Your task to perform on an android device: Open internet settings Image 0: 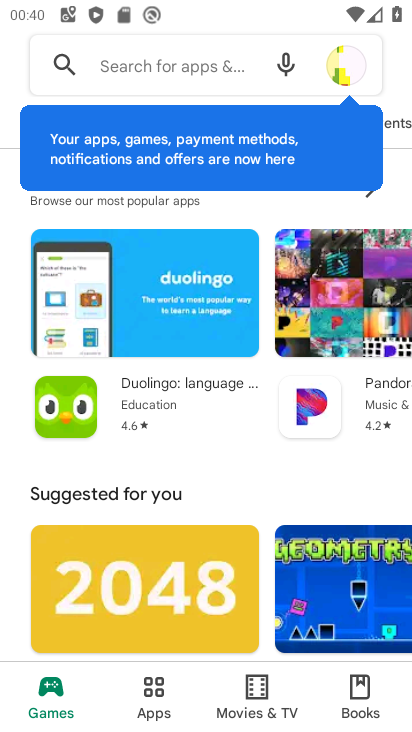
Step 0: press home button
Your task to perform on an android device: Open internet settings Image 1: 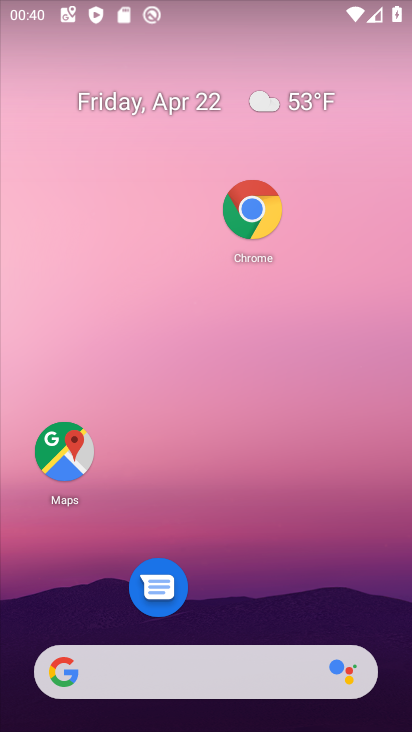
Step 1: drag from (265, 608) to (248, 82)
Your task to perform on an android device: Open internet settings Image 2: 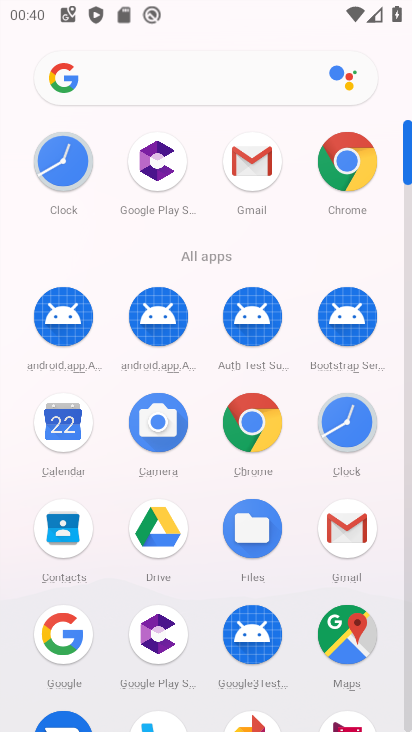
Step 2: drag from (190, 331) to (178, 63)
Your task to perform on an android device: Open internet settings Image 3: 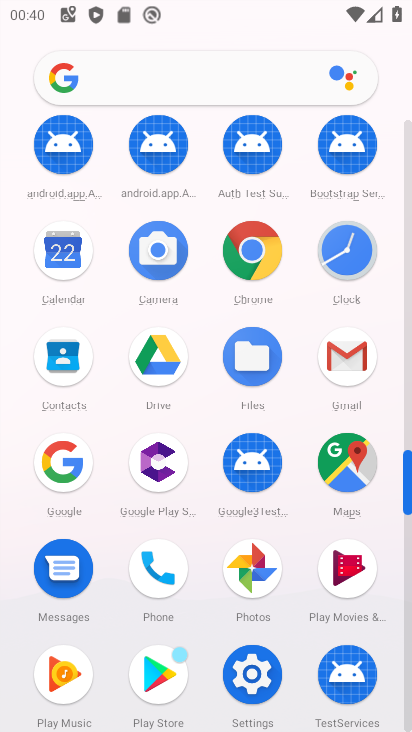
Step 3: click (260, 665)
Your task to perform on an android device: Open internet settings Image 4: 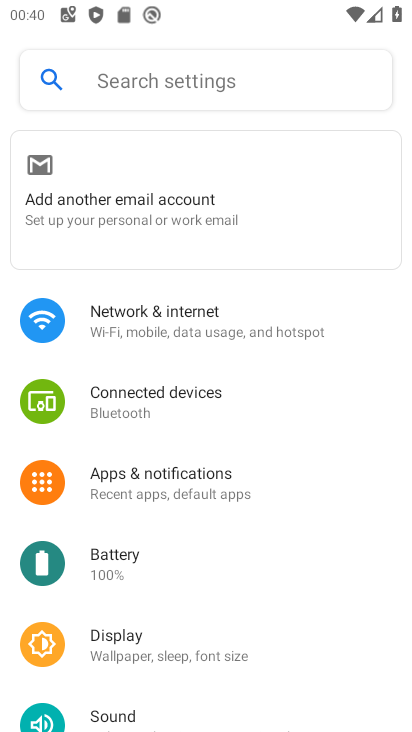
Step 4: click (155, 310)
Your task to perform on an android device: Open internet settings Image 5: 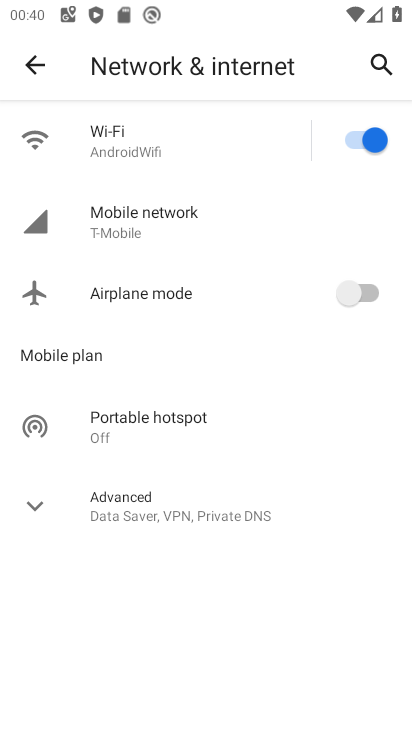
Step 5: task complete